Your task to perform on an android device: find photos in the google photos app Image 0: 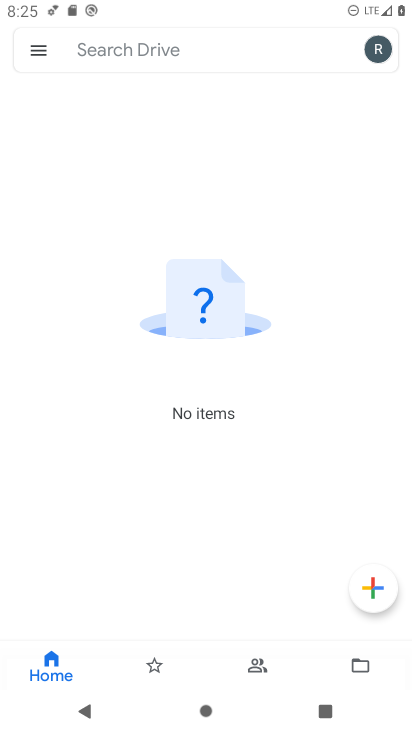
Step 0: press home button
Your task to perform on an android device: find photos in the google photos app Image 1: 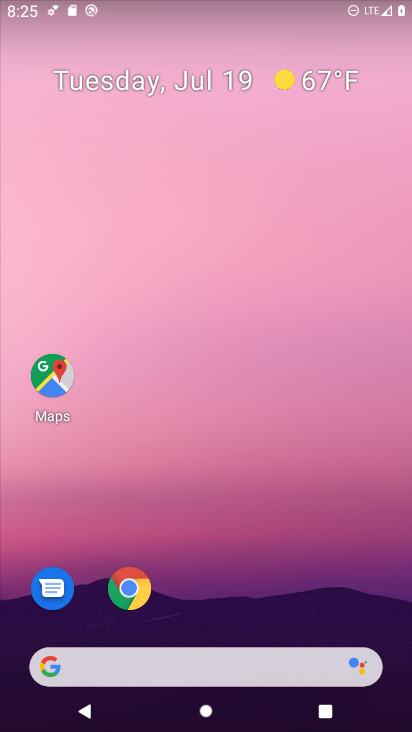
Step 1: drag from (359, 597) to (358, 129)
Your task to perform on an android device: find photos in the google photos app Image 2: 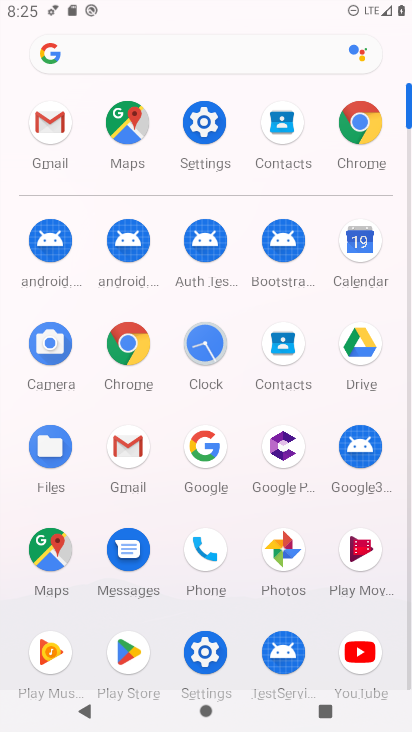
Step 2: click (283, 553)
Your task to perform on an android device: find photos in the google photos app Image 3: 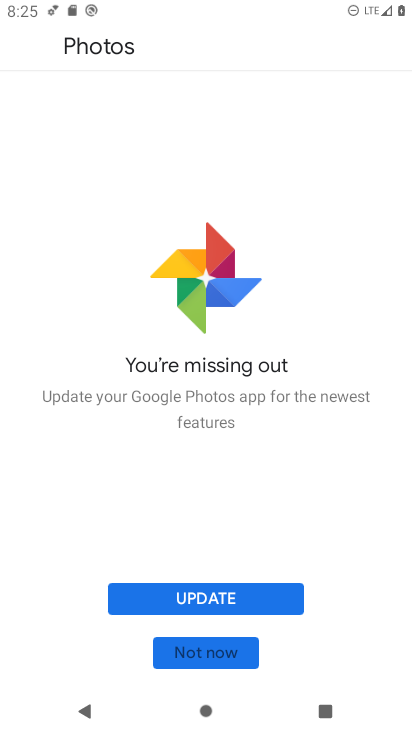
Step 3: click (240, 597)
Your task to perform on an android device: find photos in the google photos app Image 4: 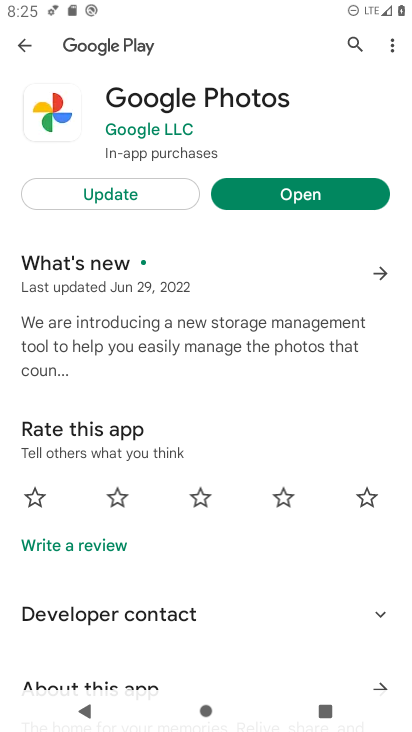
Step 4: click (137, 195)
Your task to perform on an android device: find photos in the google photos app Image 5: 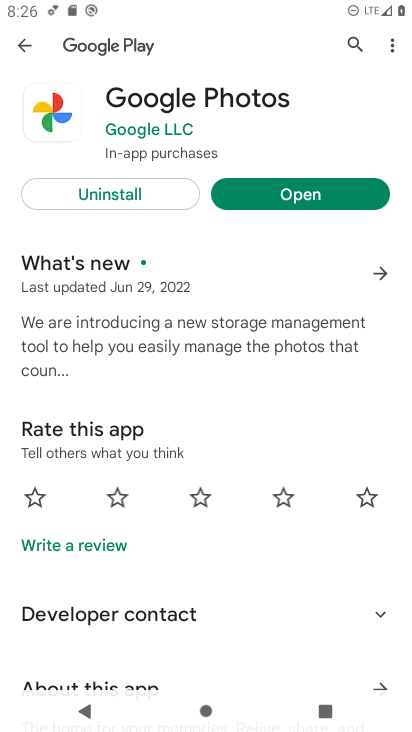
Step 5: click (327, 192)
Your task to perform on an android device: find photos in the google photos app Image 6: 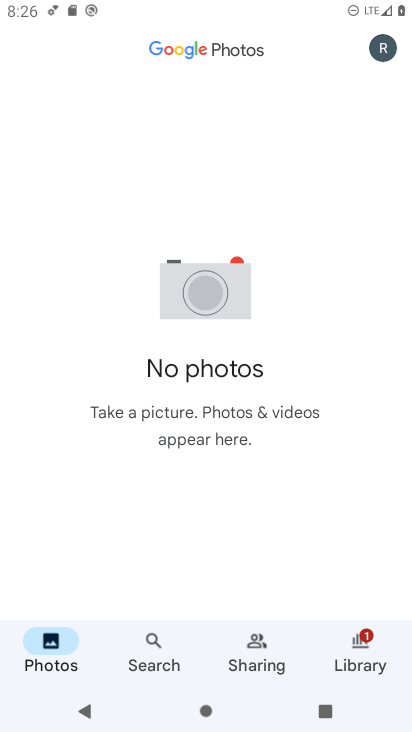
Step 6: task complete